Your task to perform on an android device: Go to notification settings Image 0: 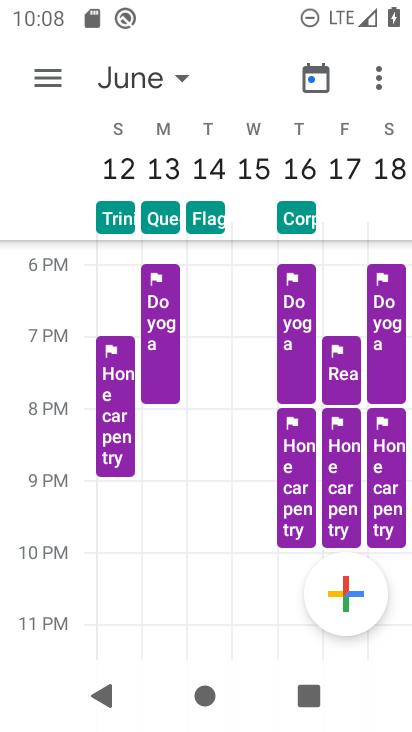
Step 0: press home button
Your task to perform on an android device: Go to notification settings Image 1: 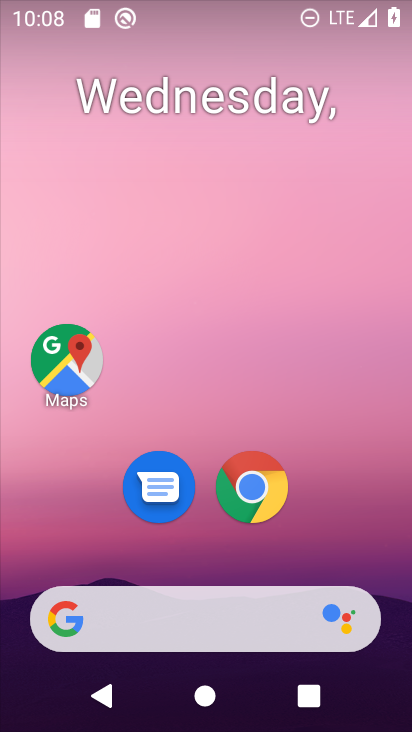
Step 1: drag from (353, 468) to (225, 11)
Your task to perform on an android device: Go to notification settings Image 2: 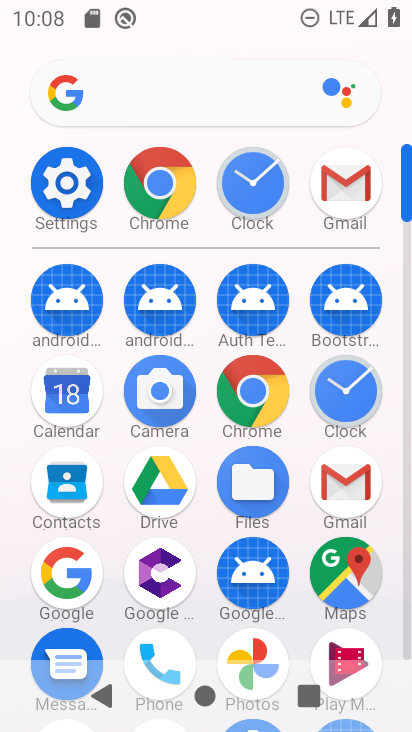
Step 2: click (64, 182)
Your task to perform on an android device: Go to notification settings Image 3: 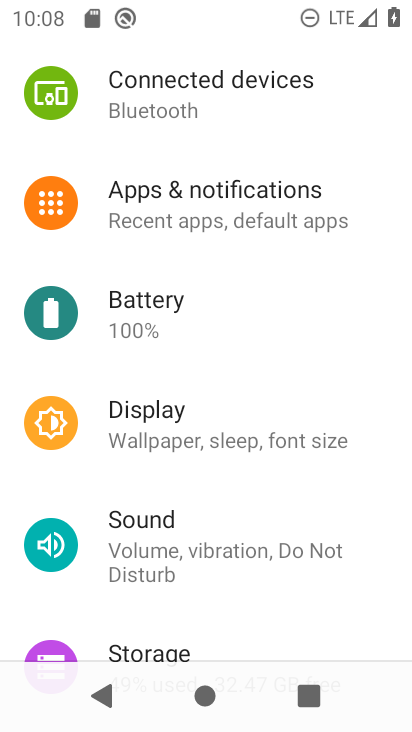
Step 3: click (181, 187)
Your task to perform on an android device: Go to notification settings Image 4: 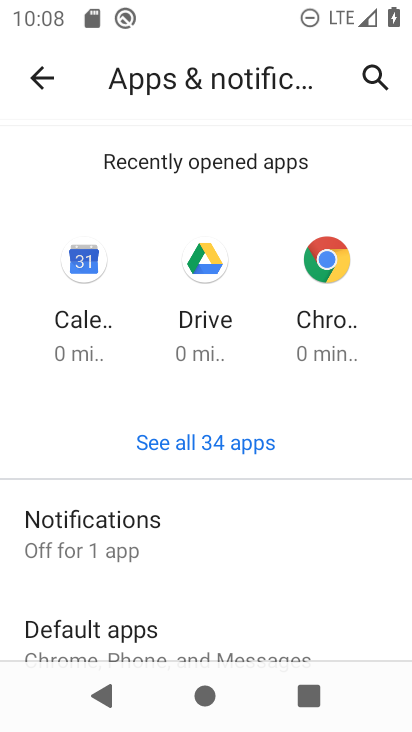
Step 4: drag from (211, 555) to (152, 329)
Your task to perform on an android device: Go to notification settings Image 5: 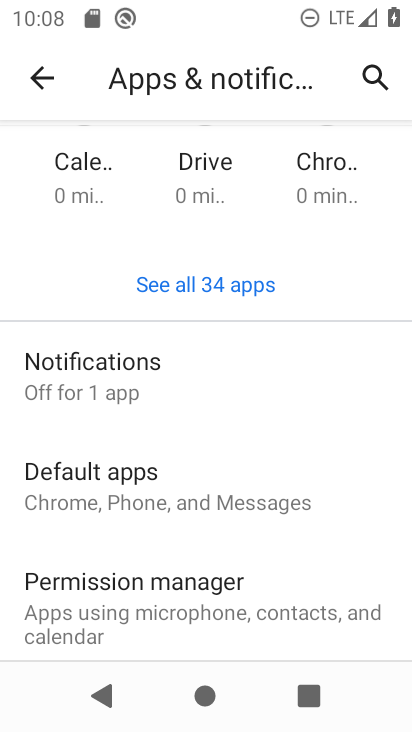
Step 5: click (141, 360)
Your task to perform on an android device: Go to notification settings Image 6: 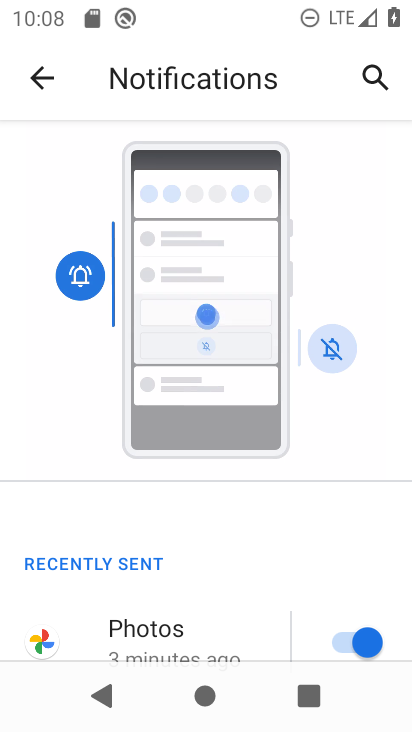
Step 6: task complete